Your task to perform on an android device: change notifications settings Image 0: 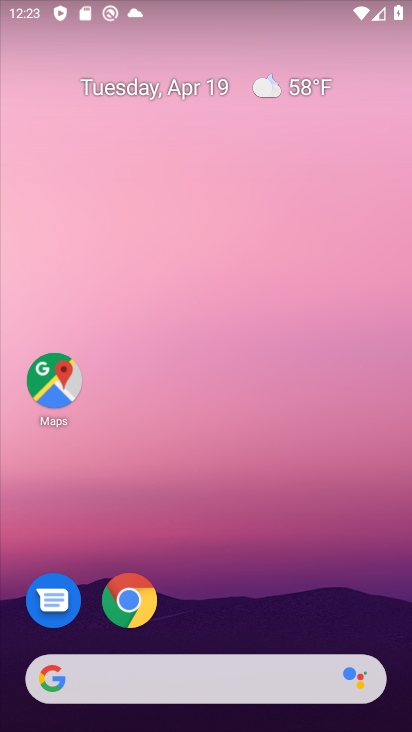
Step 0: drag from (211, 690) to (130, 172)
Your task to perform on an android device: change notifications settings Image 1: 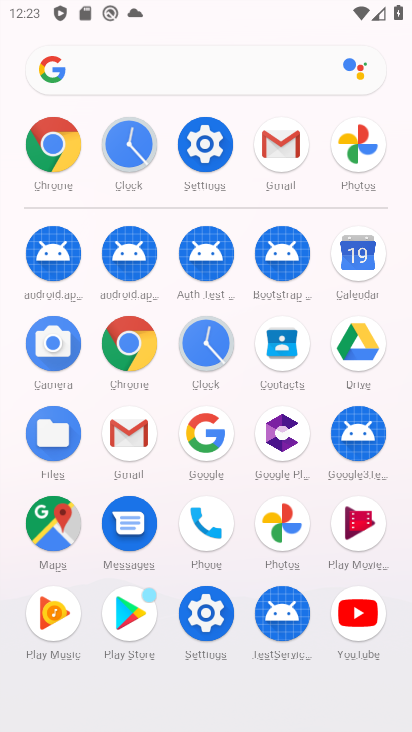
Step 1: click (201, 166)
Your task to perform on an android device: change notifications settings Image 2: 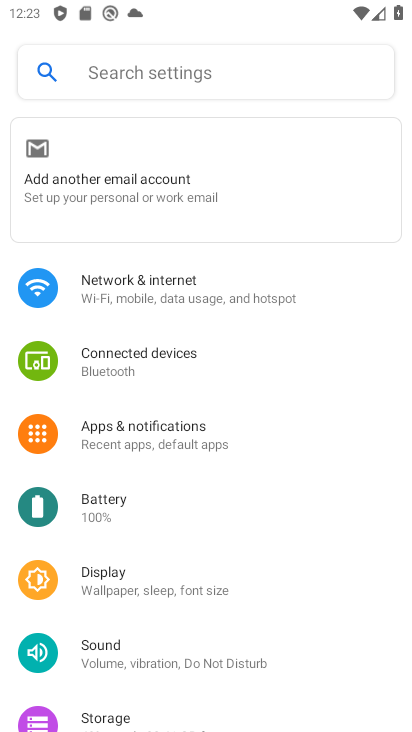
Step 2: click (163, 44)
Your task to perform on an android device: change notifications settings Image 3: 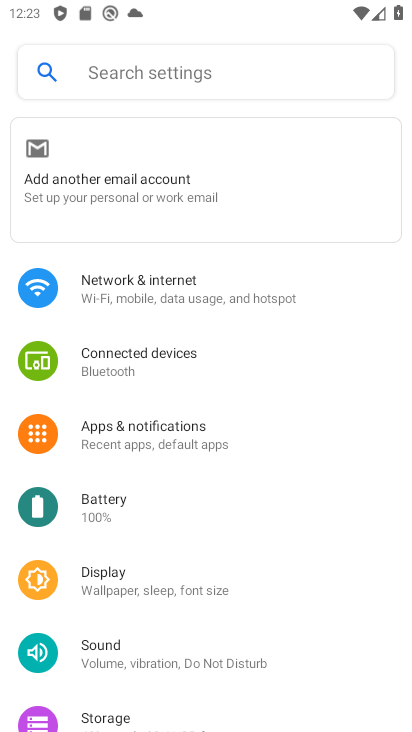
Step 3: click (159, 63)
Your task to perform on an android device: change notifications settings Image 4: 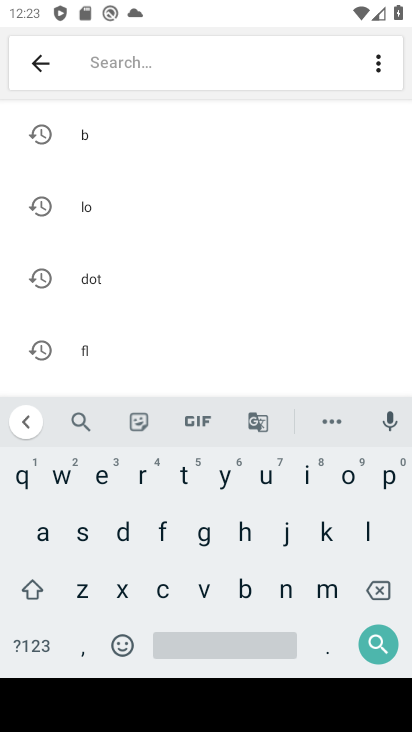
Step 4: click (284, 582)
Your task to perform on an android device: change notifications settings Image 5: 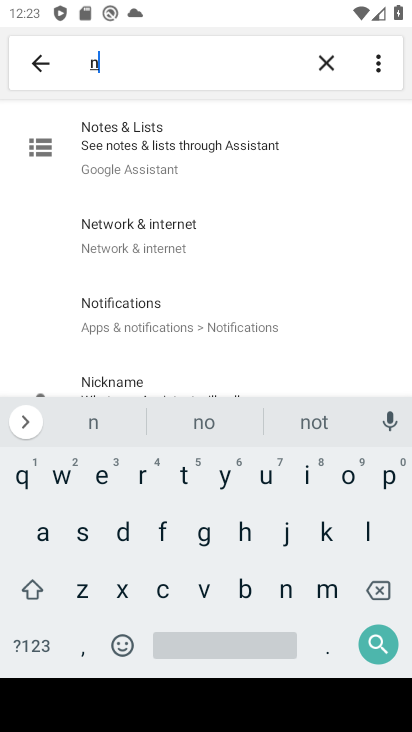
Step 5: click (178, 308)
Your task to perform on an android device: change notifications settings Image 6: 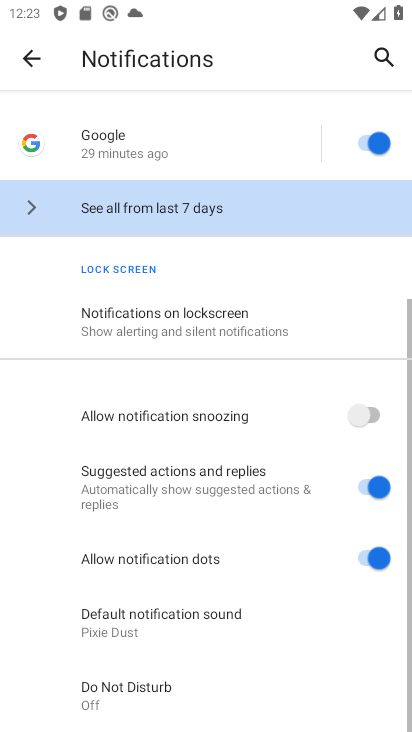
Step 6: click (178, 308)
Your task to perform on an android device: change notifications settings Image 7: 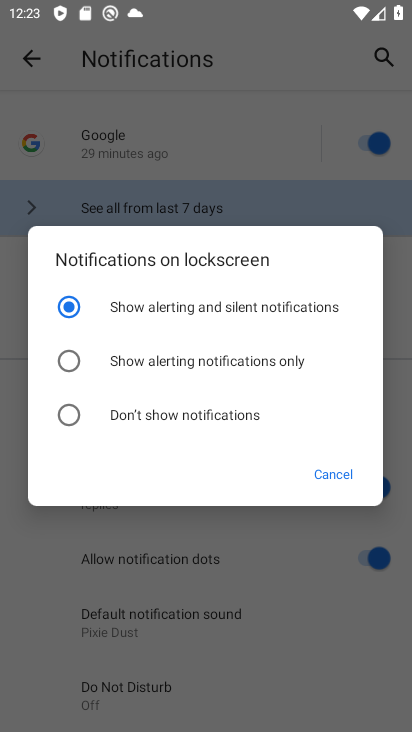
Step 7: click (151, 362)
Your task to perform on an android device: change notifications settings Image 8: 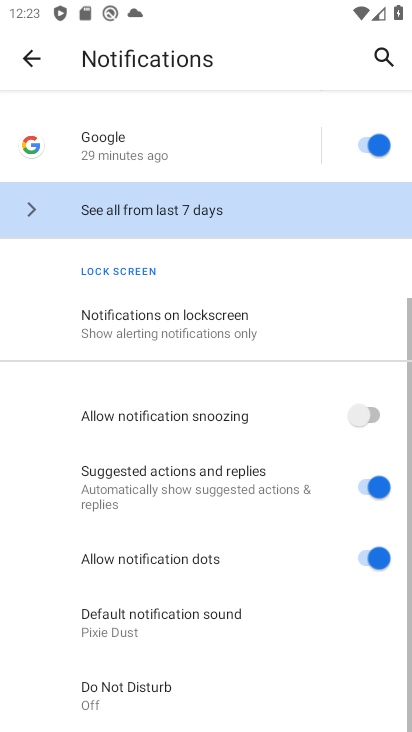
Step 8: task complete